Your task to perform on an android device: Open Chrome and go to settings Image 0: 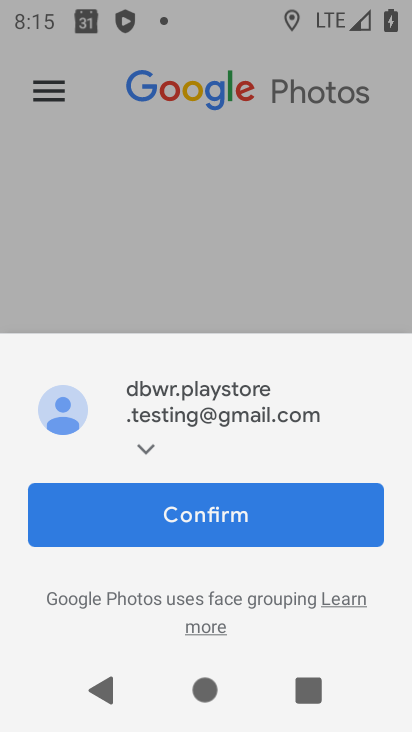
Step 0: press home button
Your task to perform on an android device: Open Chrome and go to settings Image 1: 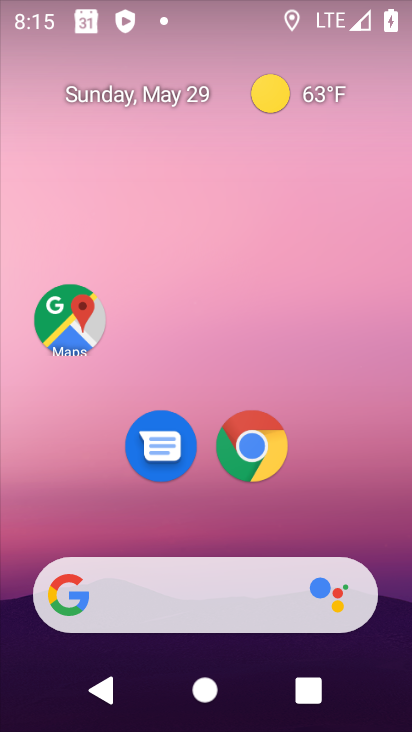
Step 1: click (260, 450)
Your task to perform on an android device: Open Chrome and go to settings Image 2: 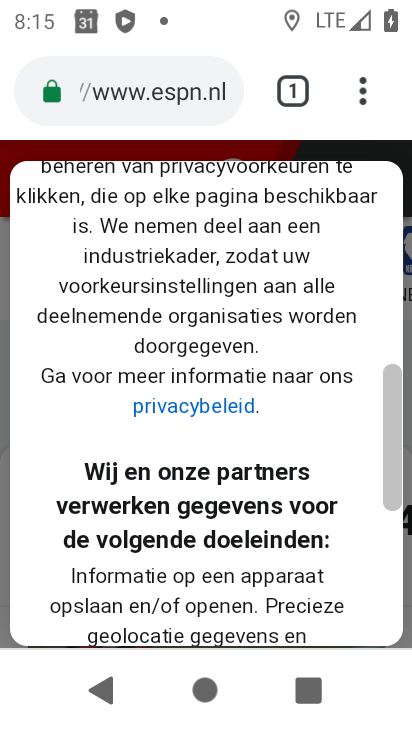
Step 2: task complete